Your task to perform on an android device: turn on showing notifications on the lock screen Image 0: 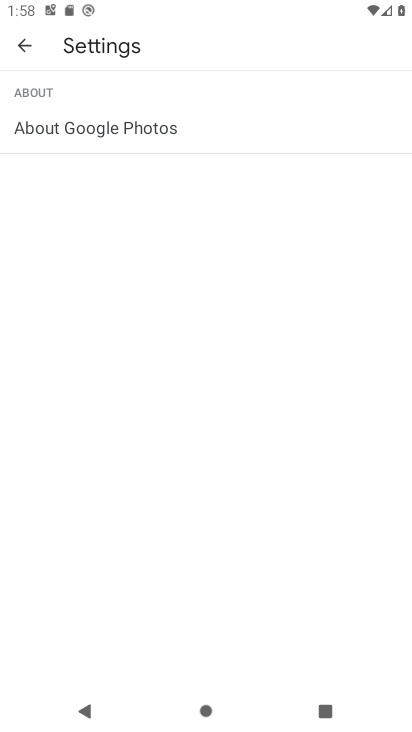
Step 0: press home button
Your task to perform on an android device: turn on showing notifications on the lock screen Image 1: 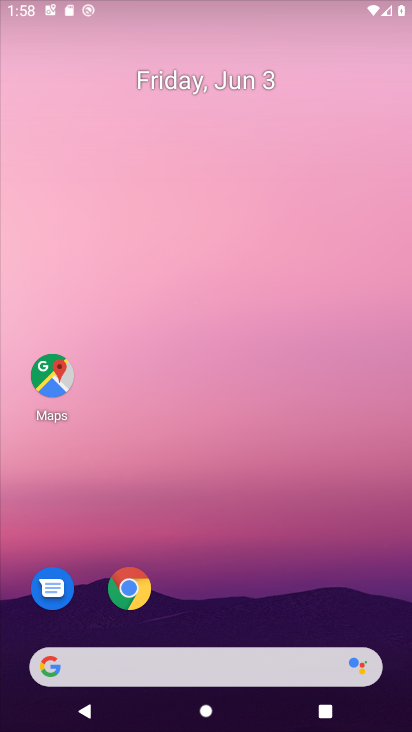
Step 1: drag from (178, 506) to (164, 145)
Your task to perform on an android device: turn on showing notifications on the lock screen Image 2: 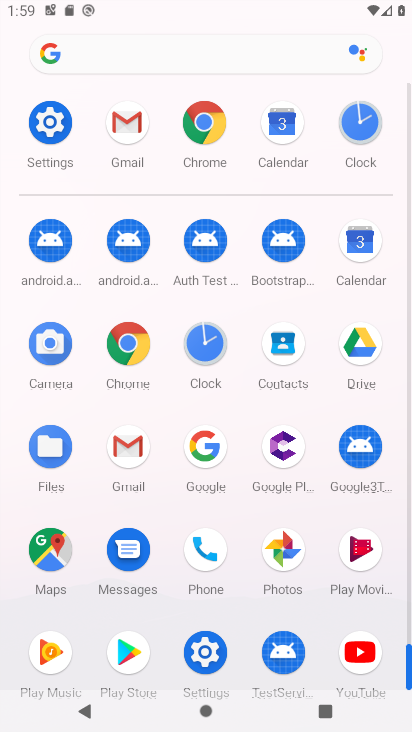
Step 2: click (47, 146)
Your task to perform on an android device: turn on showing notifications on the lock screen Image 3: 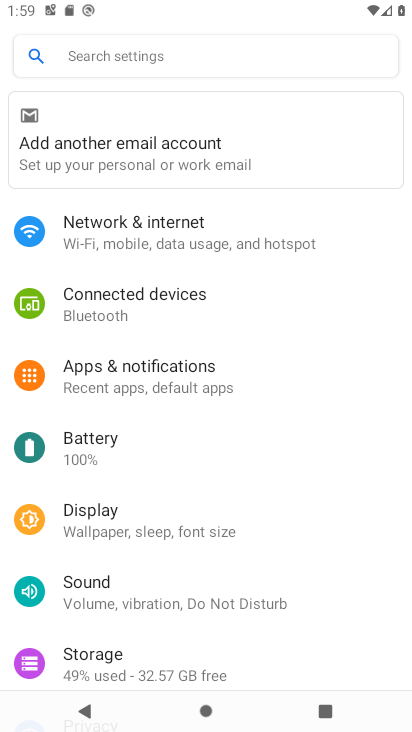
Step 3: click (193, 369)
Your task to perform on an android device: turn on showing notifications on the lock screen Image 4: 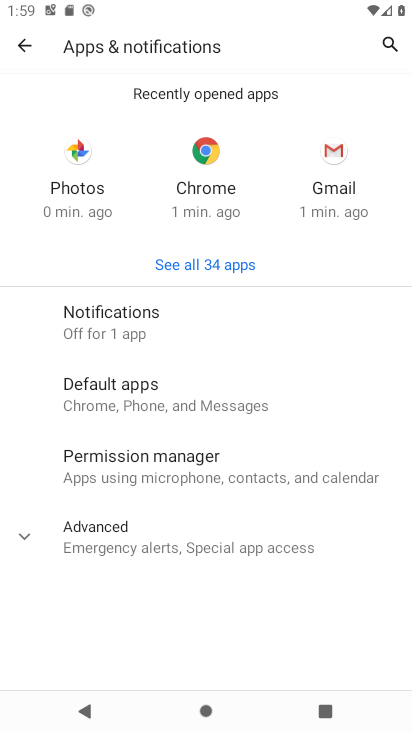
Step 4: click (150, 325)
Your task to perform on an android device: turn on showing notifications on the lock screen Image 5: 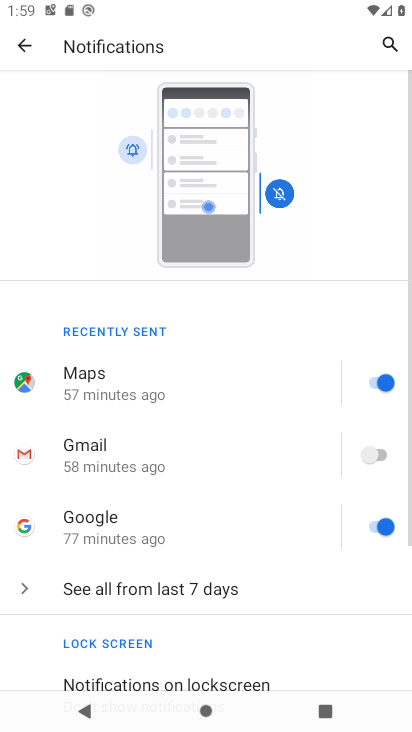
Step 5: drag from (146, 613) to (204, 302)
Your task to perform on an android device: turn on showing notifications on the lock screen Image 6: 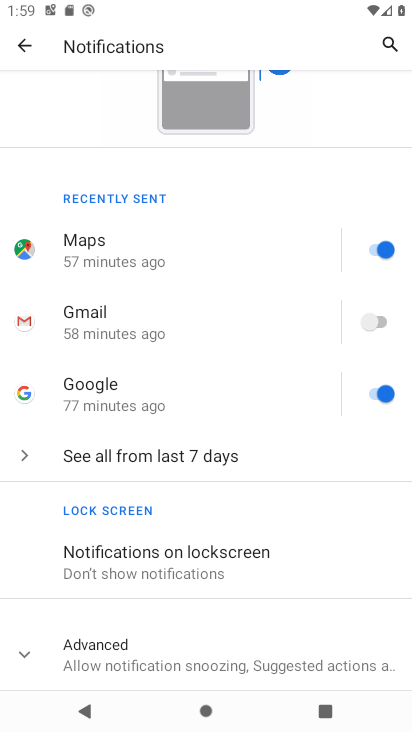
Step 6: click (177, 570)
Your task to perform on an android device: turn on showing notifications on the lock screen Image 7: 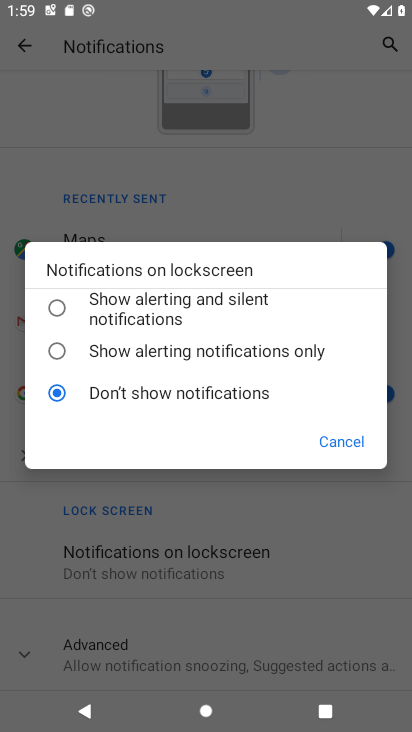
Step 7: click (102, 331)
Your task to perform on an android device: turn on showing notifications on the lock screen Image 8: 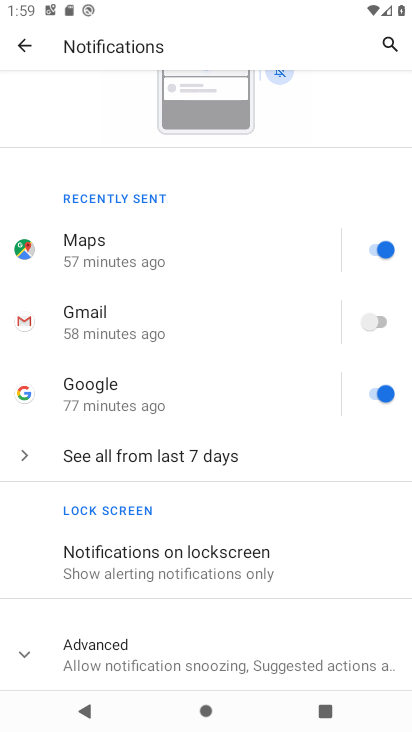
Step 8: task complete